Your task to perform on an android device: change notification settings in the gmail app Image 0: 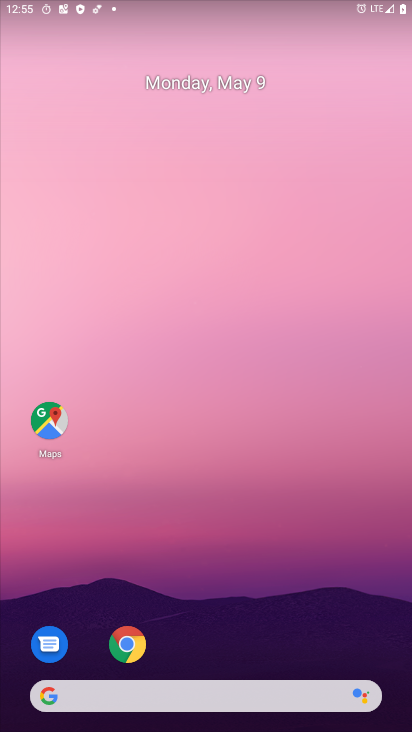
Step 0: drag from (332, 662) to (181, 12)
Your task to perform on an android device: change notification settings in the gmail app Image 1: 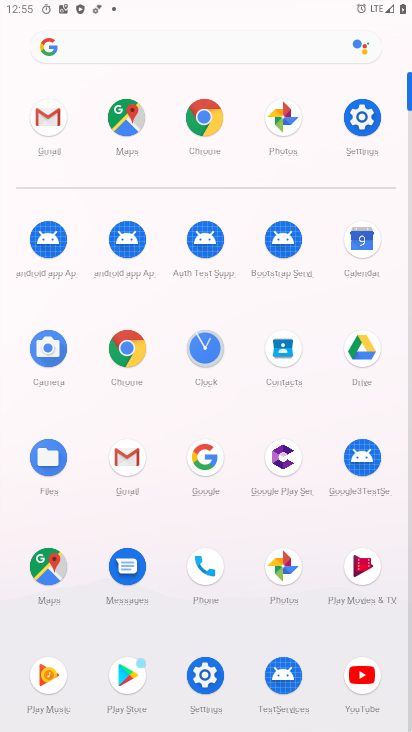
Step 1: click (116, 462)
Your task to perform on an android device: change notification settings in the gmail app Image 2: 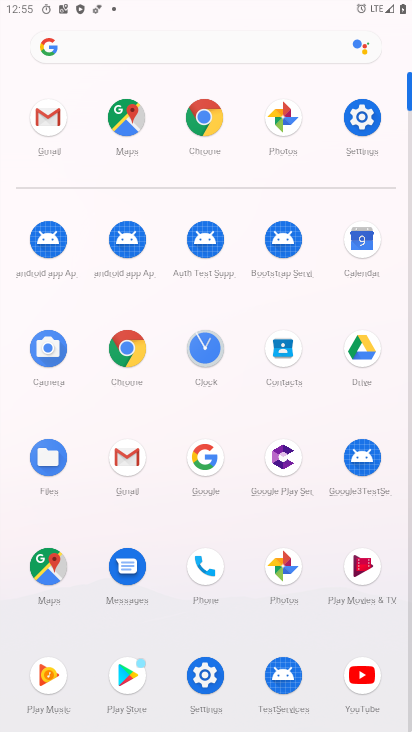
Step 2: click (128, 459)
Your task to perform on an android device: change notification settings in the gmail app Image 3: 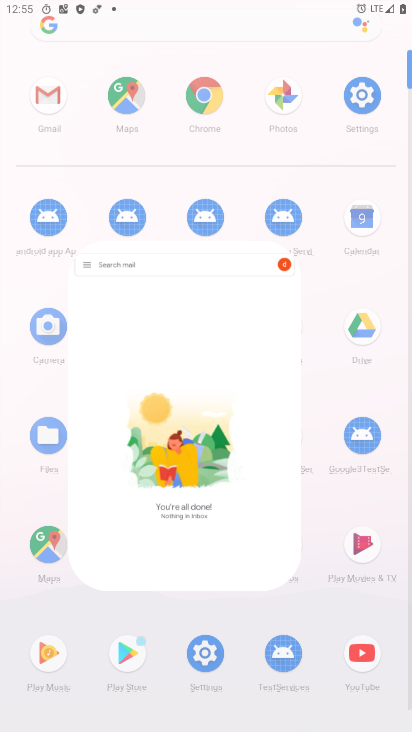
Step 3: click (128, 459)
Your task to perform on an android device: change notification settings in the gmail app Image 4: 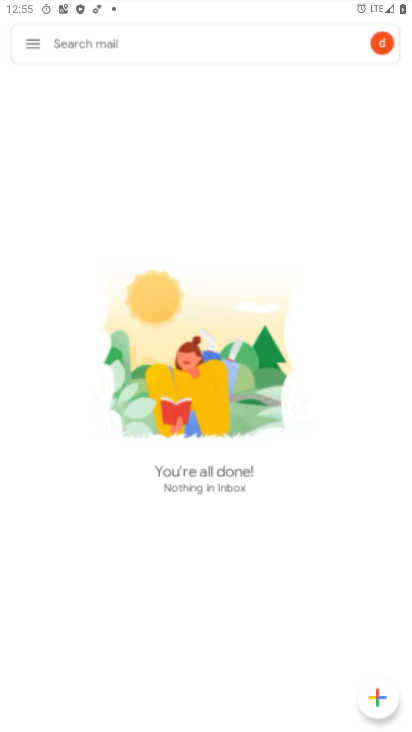
Step 4: click (130, 456)
Your task to perform on an android device: change notification settings in the gmail app Image 5: 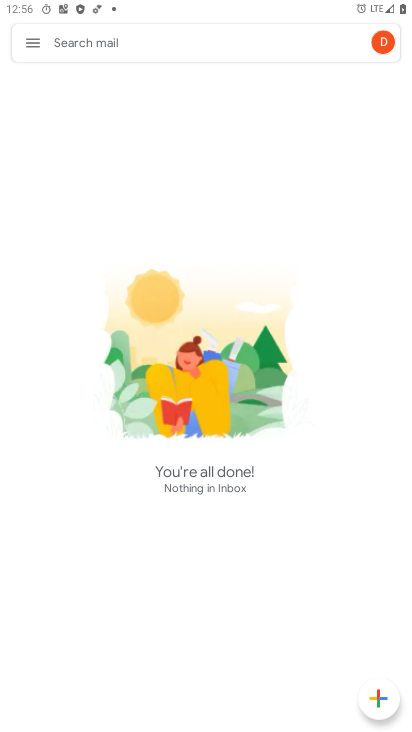
Step 5: click (31, 31)
Your task to perform on an android device: change notification settings in the gmail app Image 6: 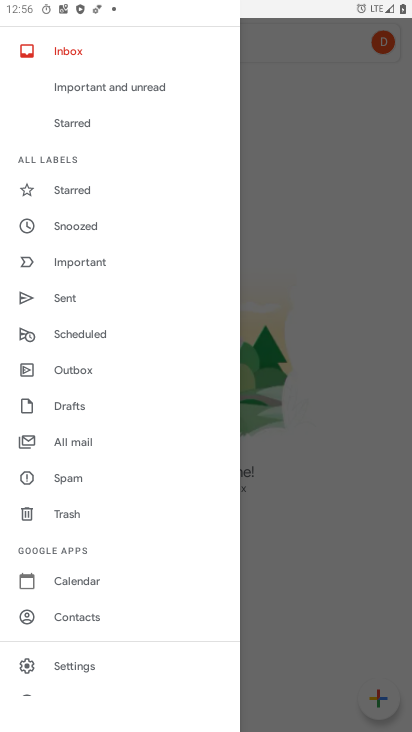
Step 6: click (83, 664)
Your task to perform on an android device: change notification settings in the gmail app Image 7: 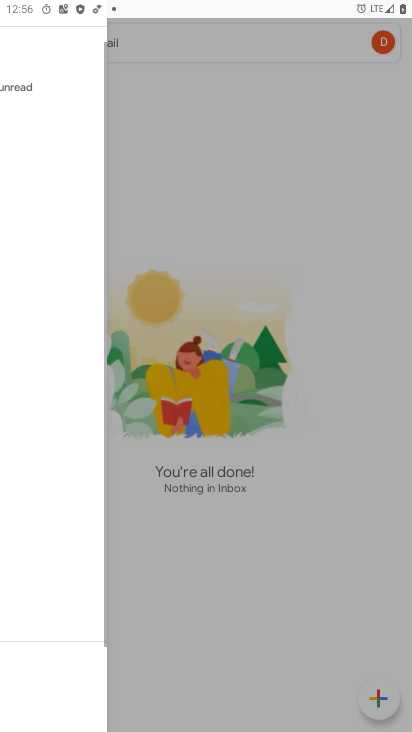
Step 7: click (76, 667)
Your task to perform on an android device: change notification settings in the gmail app Image 8: 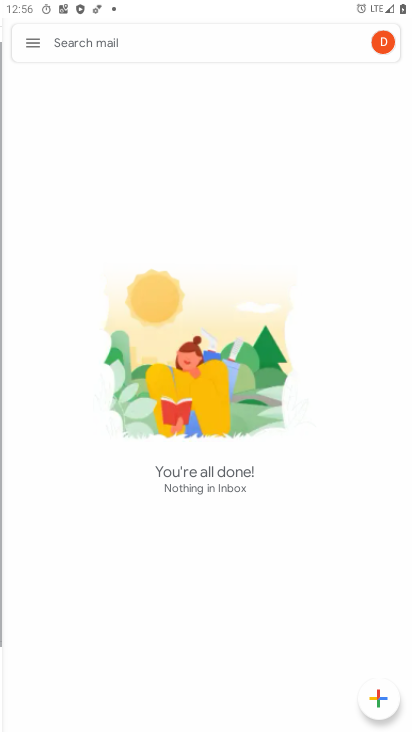
Step 8: click (79, 674)
Your task to perform on an android device: change notification settings in the gmail app Image 9: 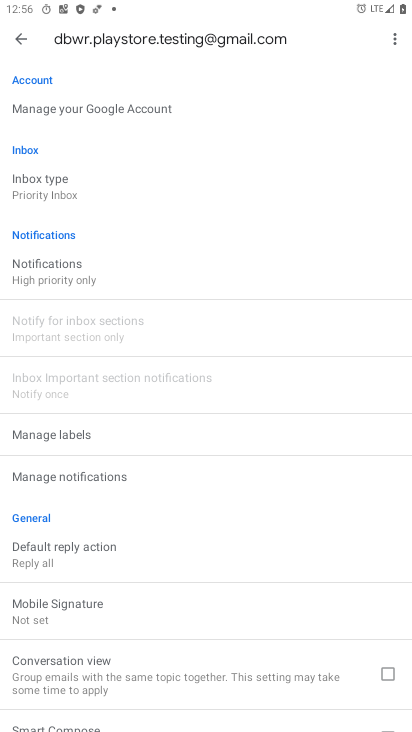
Step 9: click (36, 266)
Your task to perform on an android device: change notification settings in the gmail app Image 10: 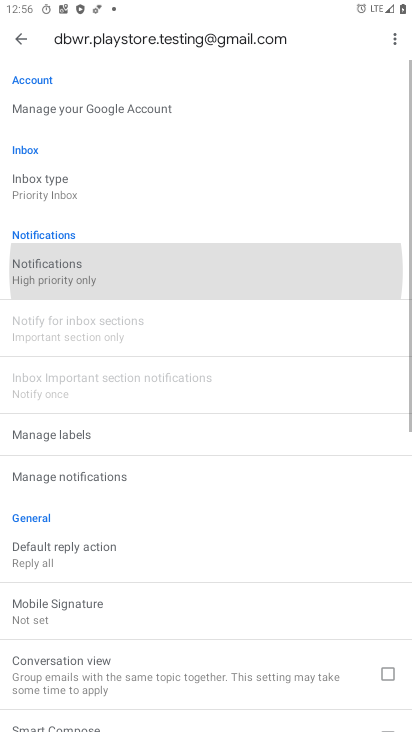
Step 10: click (40, 267)
Your task to perform on an android device: change notification settings in the gmail app Image 11: 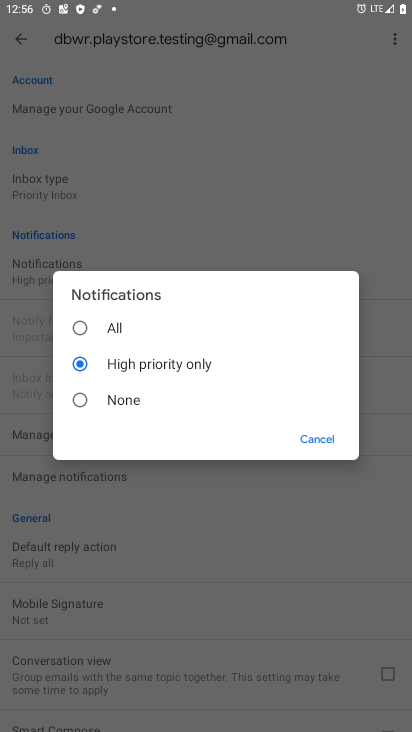
Step 11: click (82, 326)
Your task to perform on an android device: change notification settings in the gmail app Image 12: 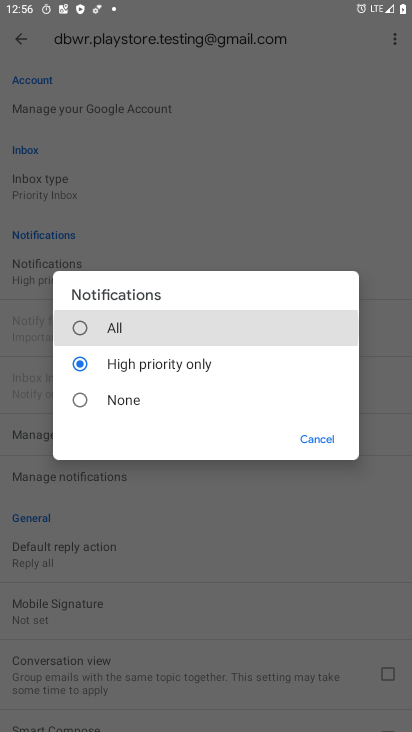
Step 12: click (84, 325)
Your task to perform on an android device: change notification settings in the gmail app Image 13: 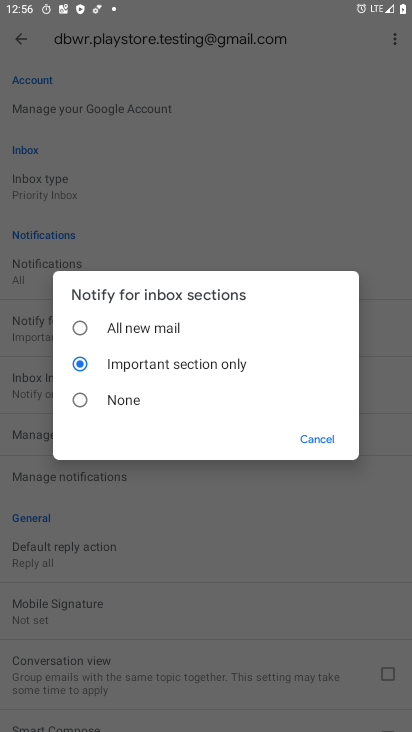
Step 13: click (79, 326)
Your task to perform on an android device: change notification settings in the gmail app Image 14: 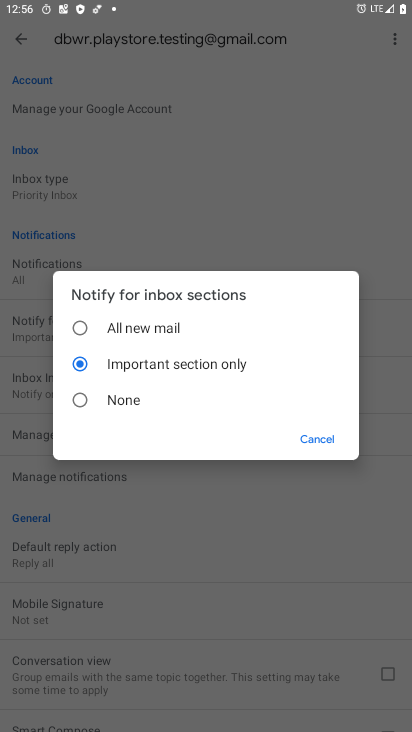
Step 14: click (80, 329)
Your task to perform on an android device: change notification settings in the gmail app Image 15: 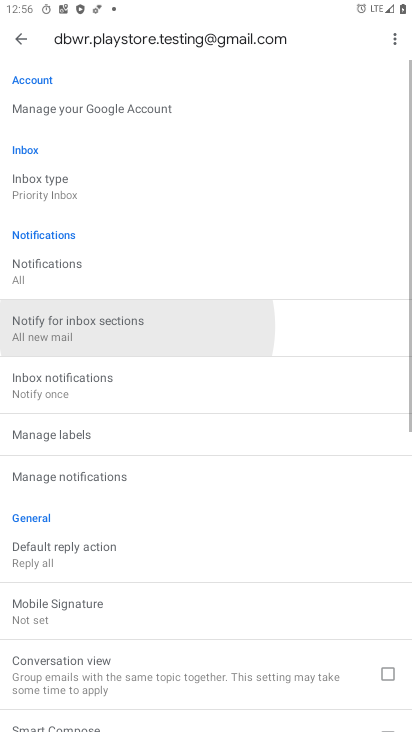
Step 15: click (80, 330)
Your task to perform on an android device: change notification settings in the gmail app Image 16: 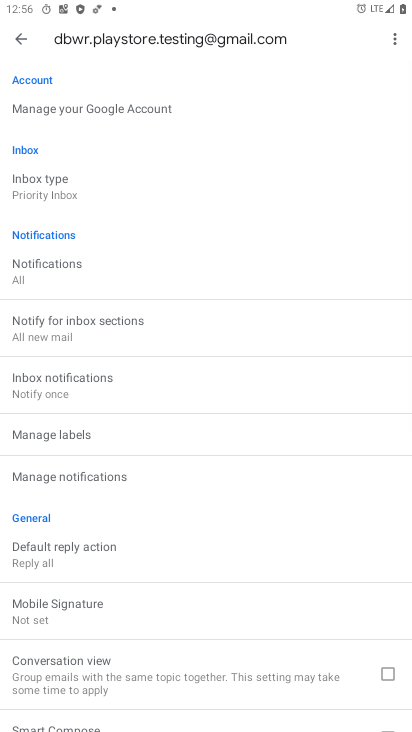
Step 16: click (311, 432)
Your task to perform on an android device: change notification settings in the gmail app Image 17: 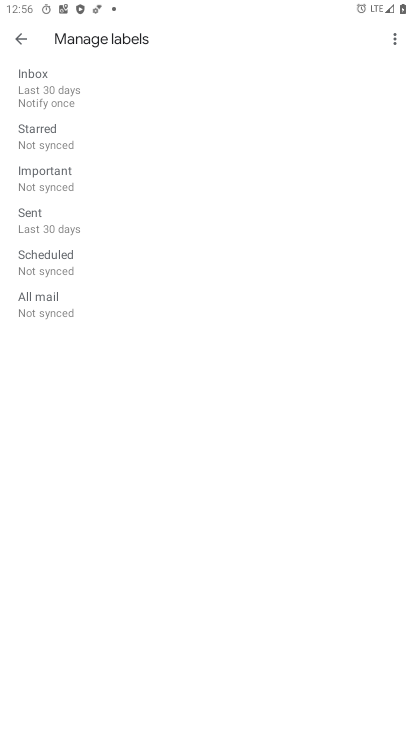
Step 17: task complete